Your task to perform on an android device: turn off location Image 0: 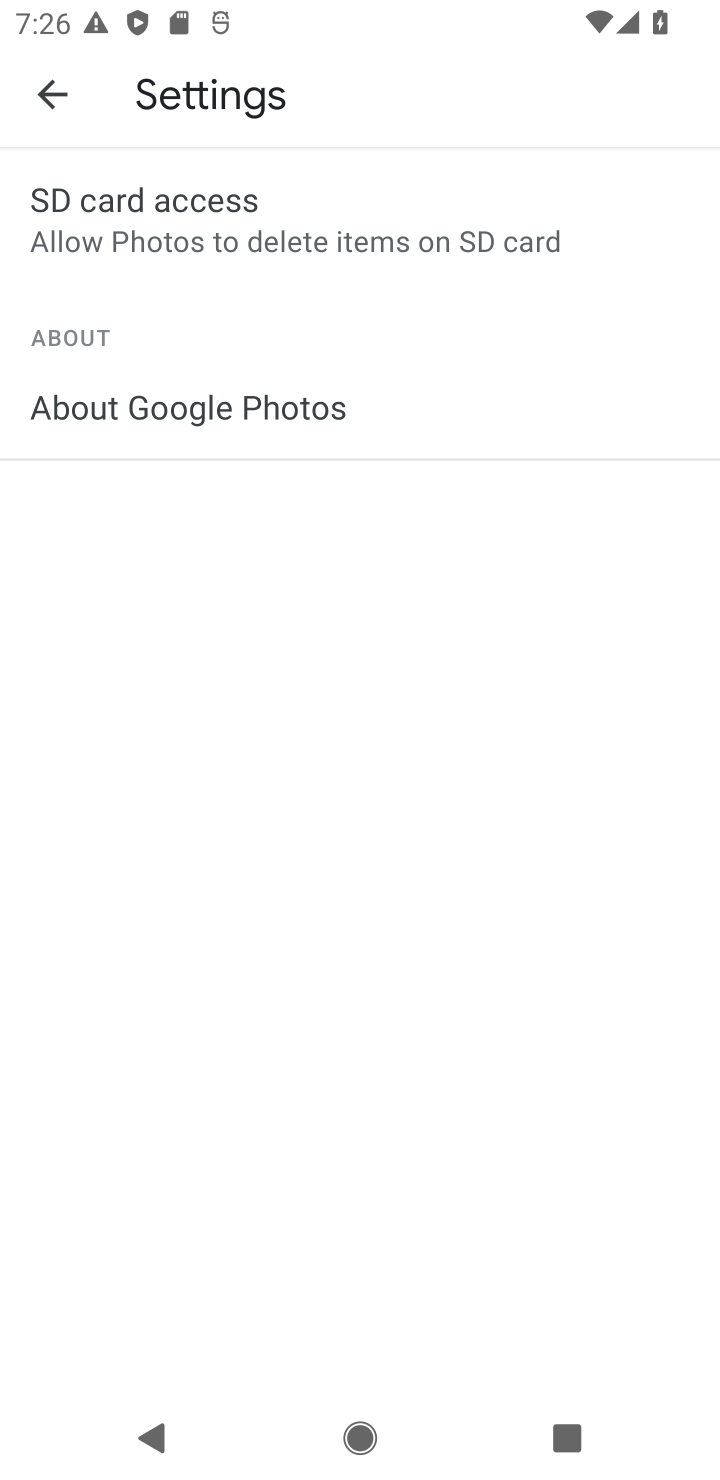
Step 0: press home button
Your task to perform on an android device: turn off location Image 1: 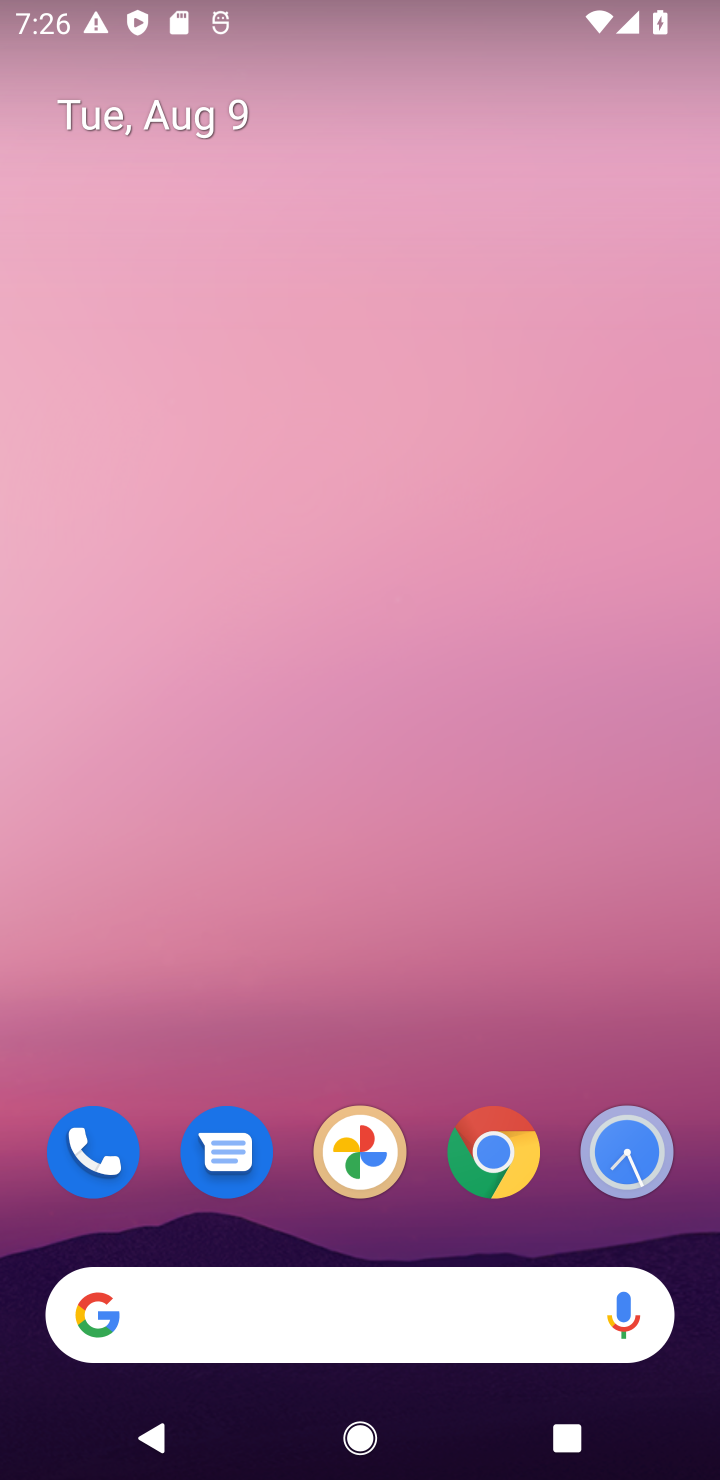
Step 1: drag from (361, 998) to (477, 351)
Your task to perform on an android device: turn off location Image 2: 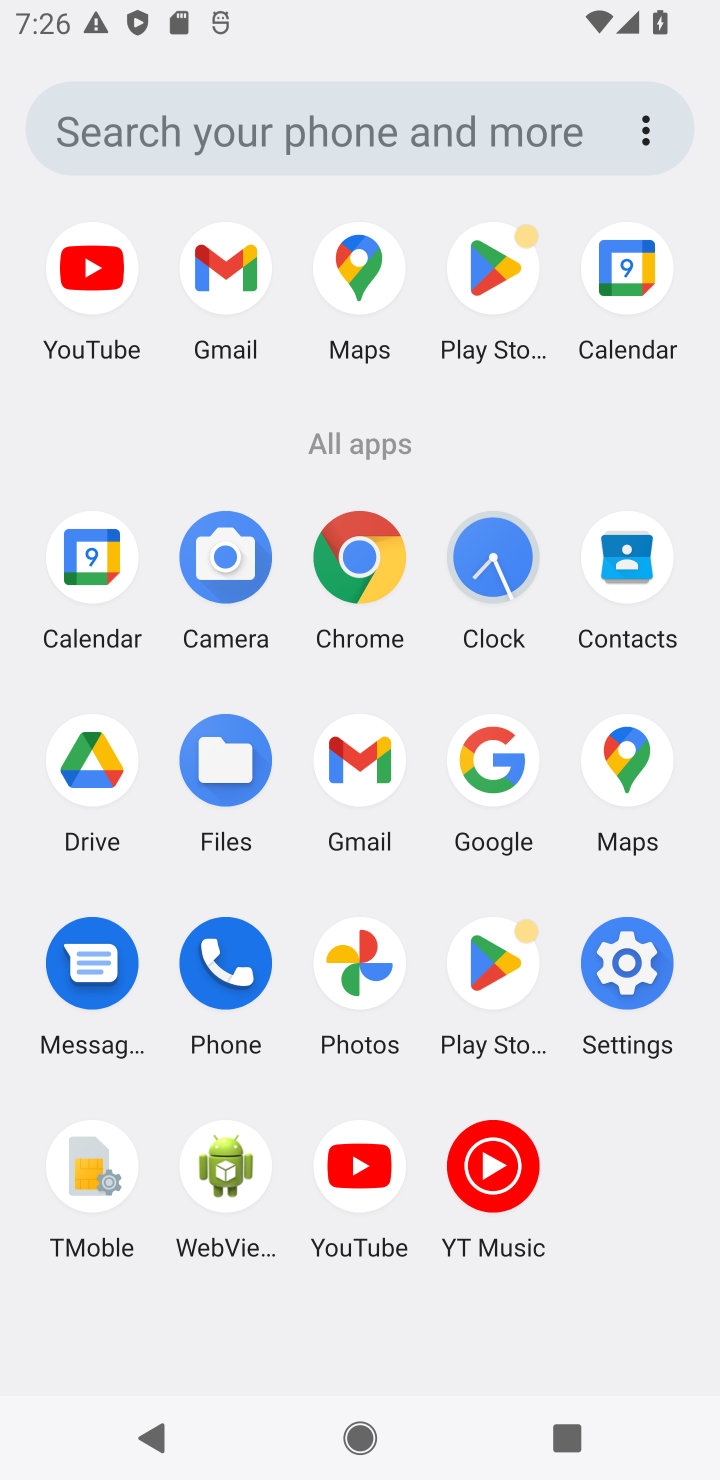
Step 2: click (612, 945)
Your task to perform on an android device: turn off location Image 3: 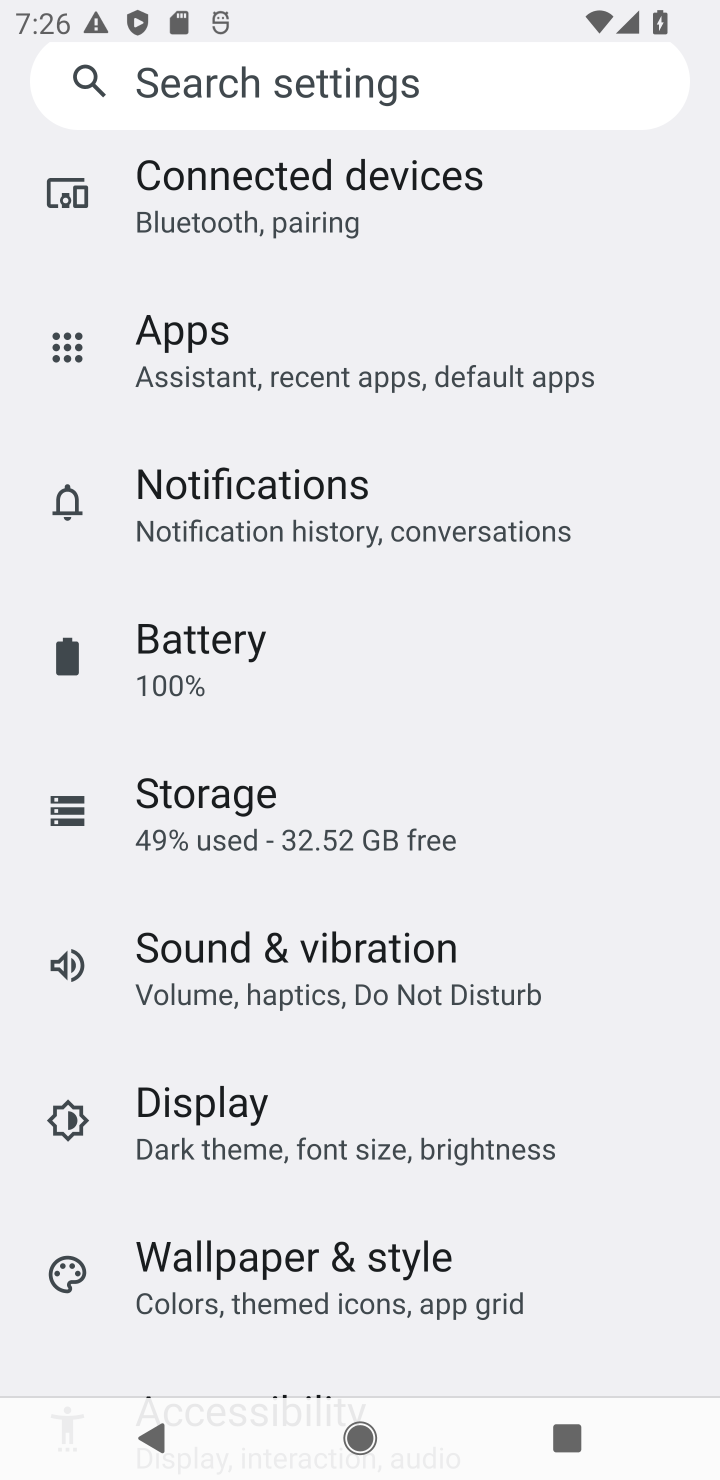
Step 3: drag from (392, 1181) to (267, 150)
Your task to perform on an android device: turn off location Image 4: 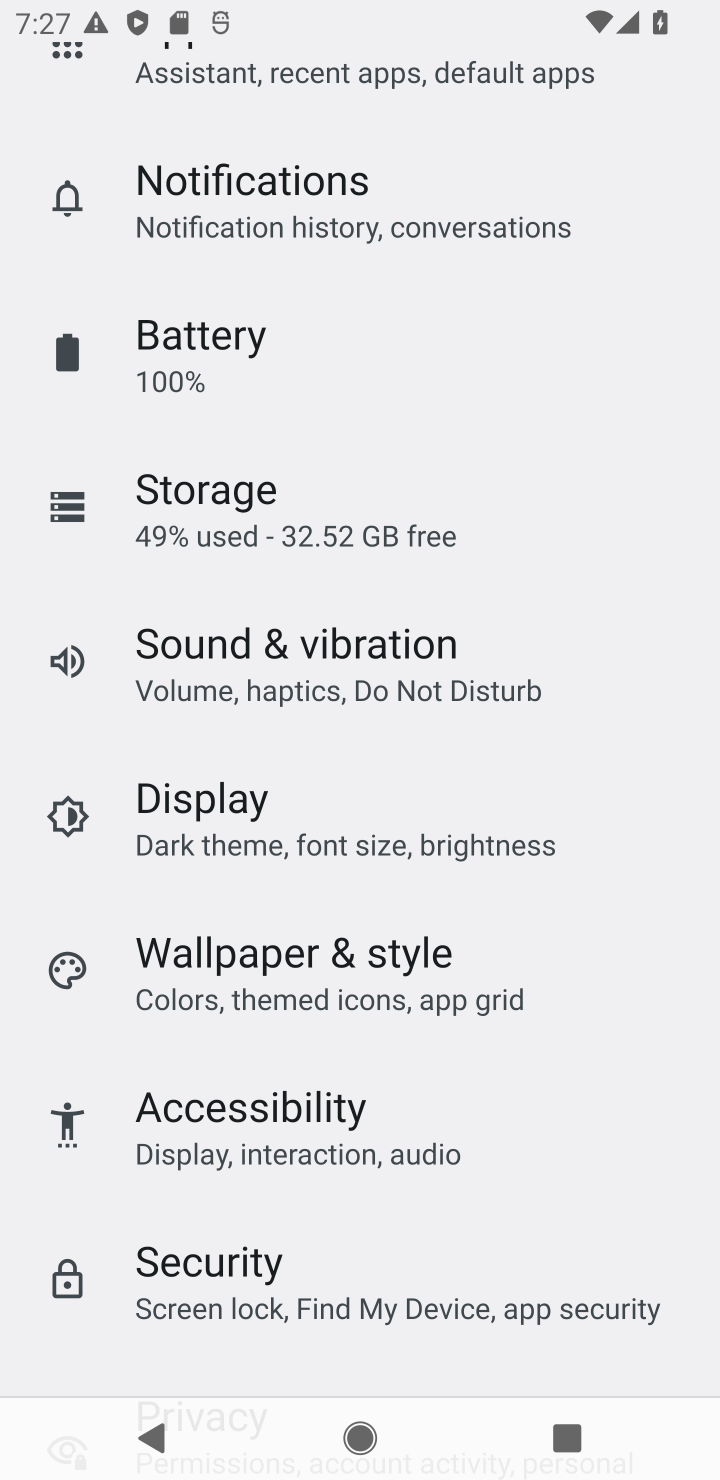
Step 4: drag from (340, 1173) to (408, 580)
Your task to perform on an android device: turn off location Image 5: 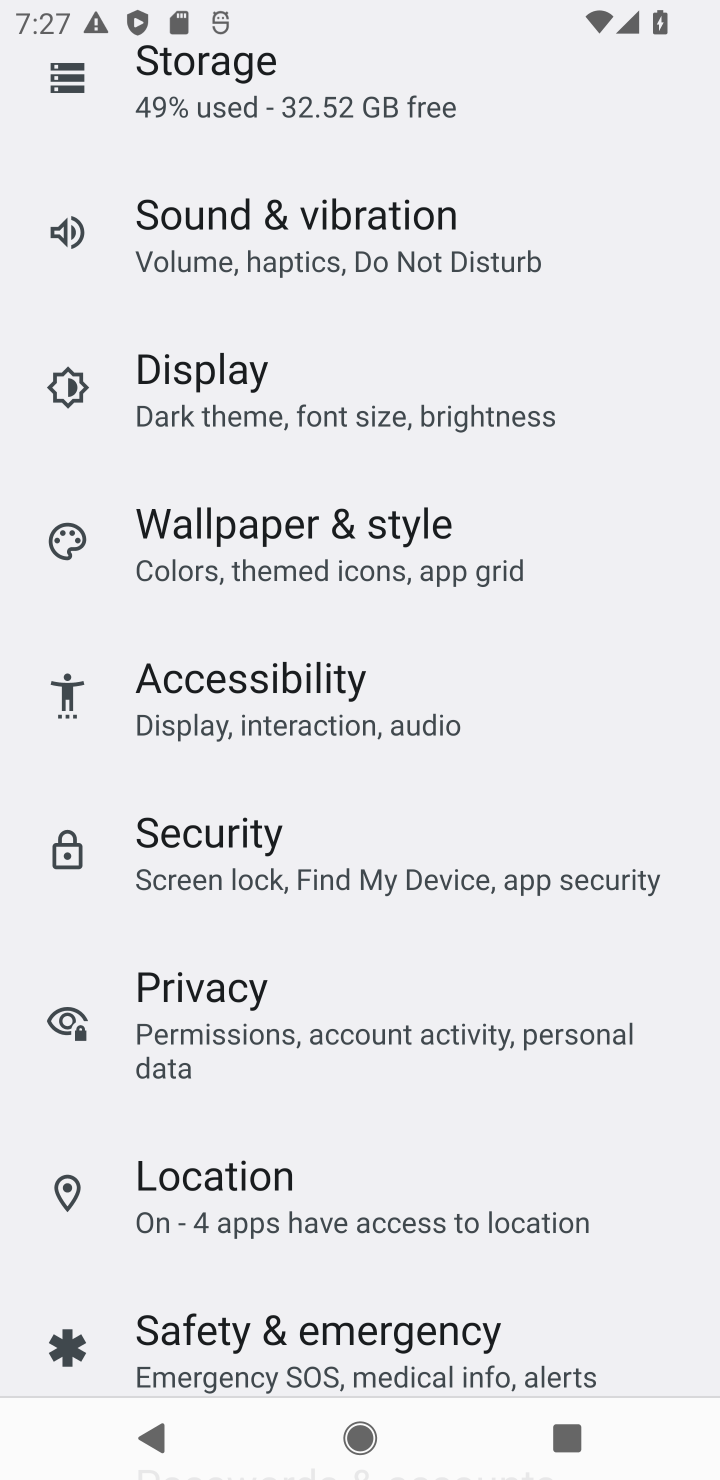
Step 5: click (256, 1190)
Your task to perform on an android device: turn off location Image 6: 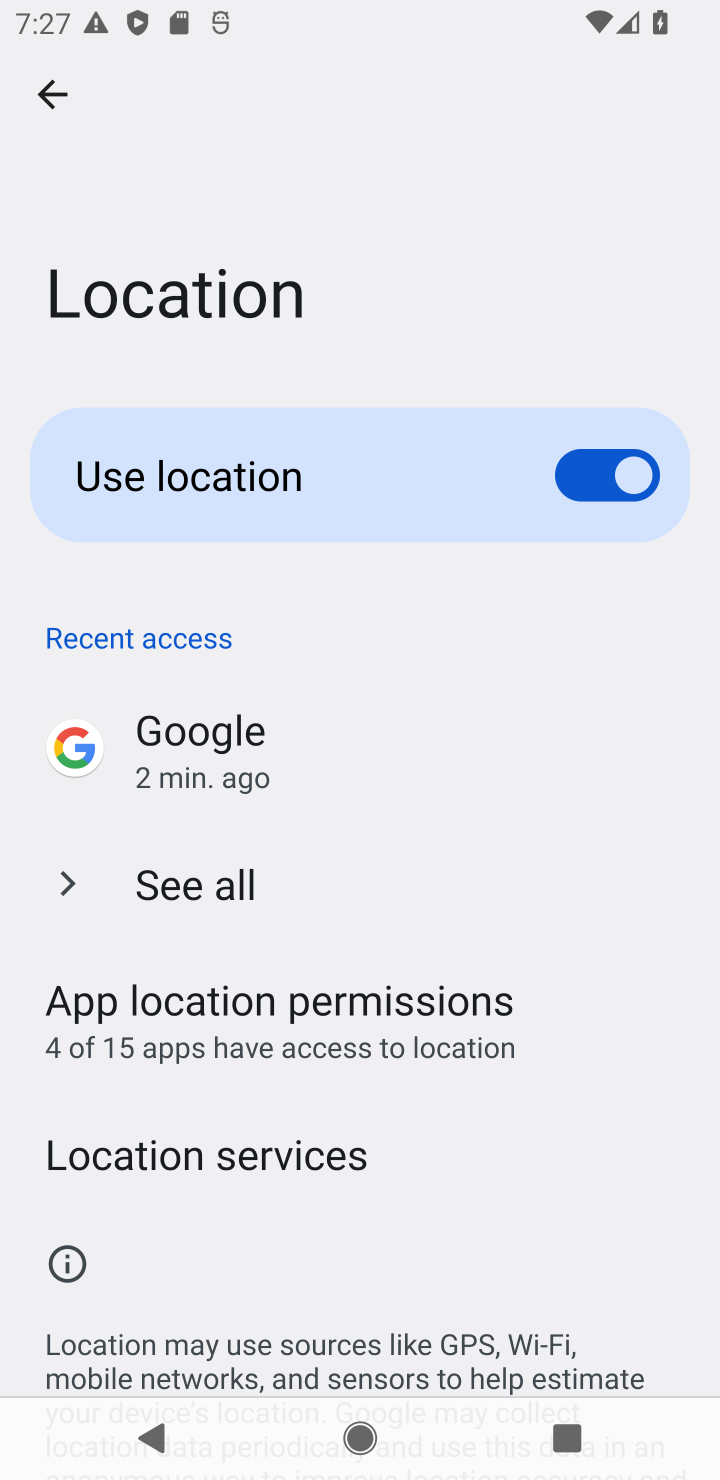
Step 6: click (634, 486)
Your task to perform on an android device: turn off location Image 7: 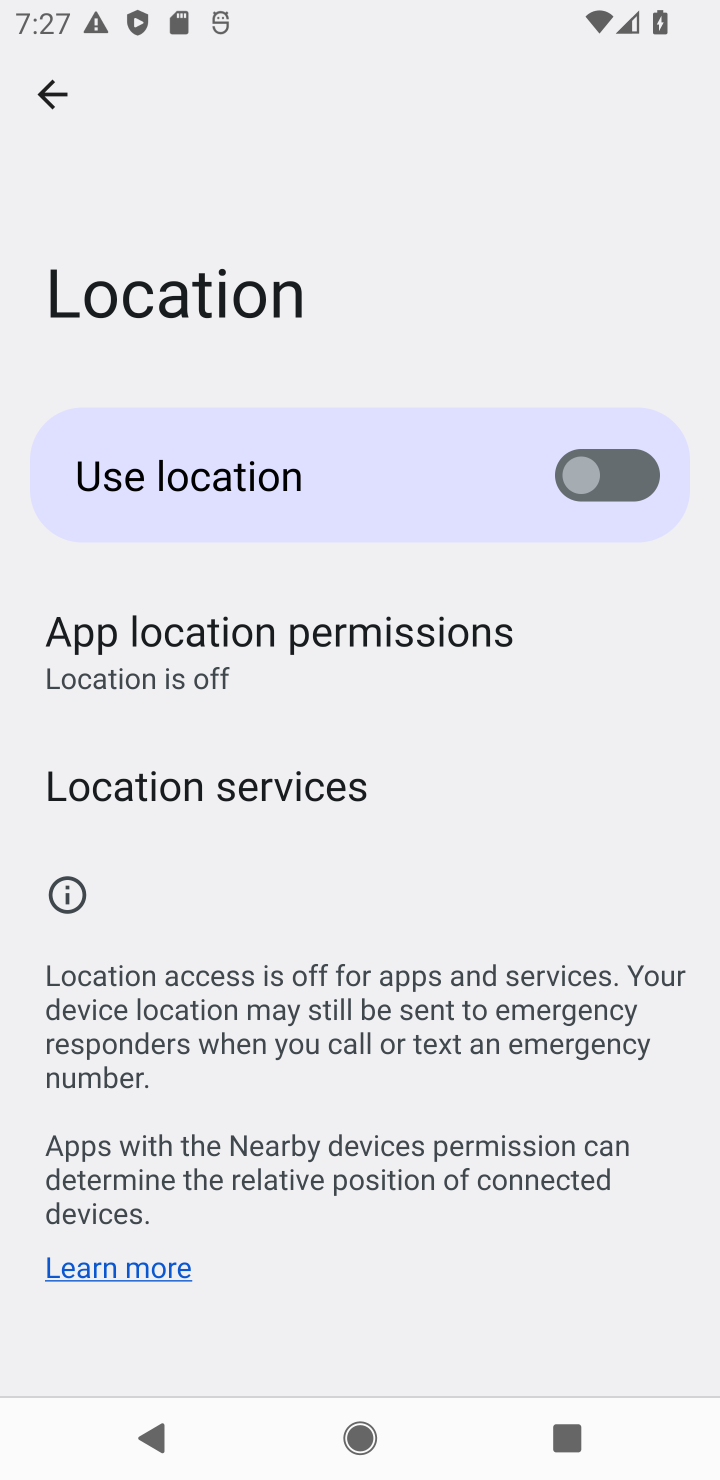
Step 7: task complete